Your task to perform on an android device: check google app version Image 0: 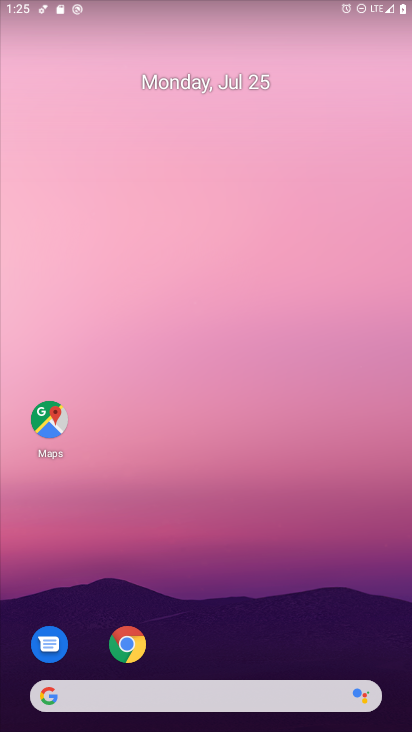
Step 0: drag from (287, 629) to (374, 12)
Your task to perform on an android device: check google app version Image 1: 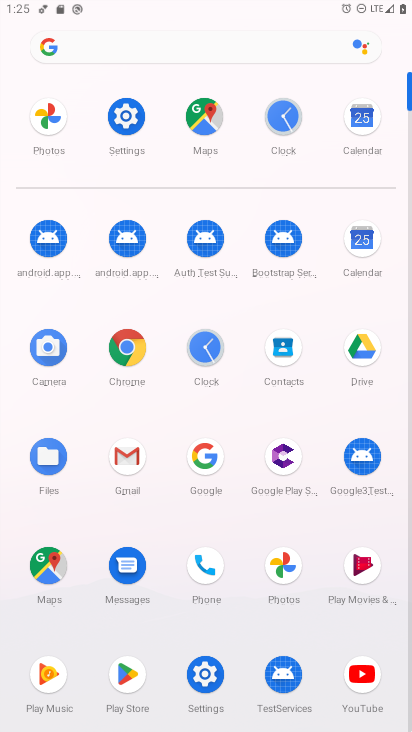
Step 1: click (209, 452)
Your task to perform on an android device: check google app version Image 2: 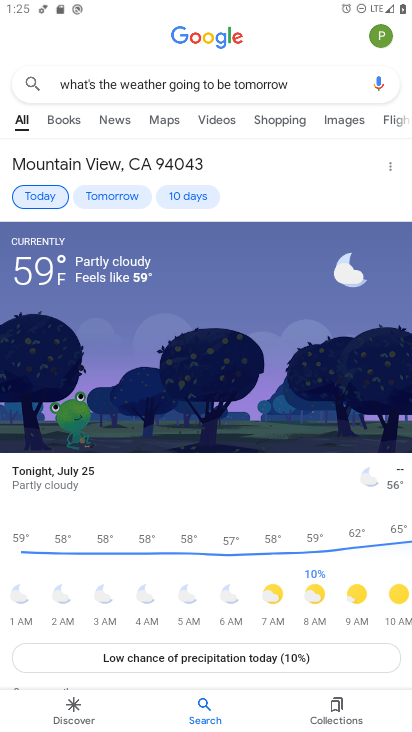
Step 2: click (376, 30)
Your task to perform on an android device: check google app version Image 3: 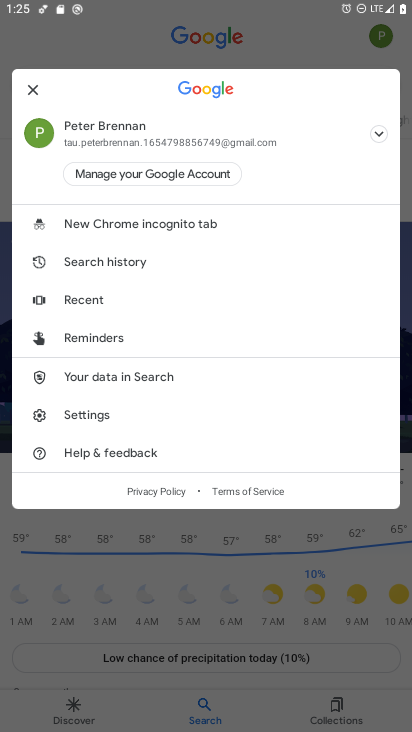
Step 3: click (125, 415)
Your task to perform on an android device: check google app version Image 4: 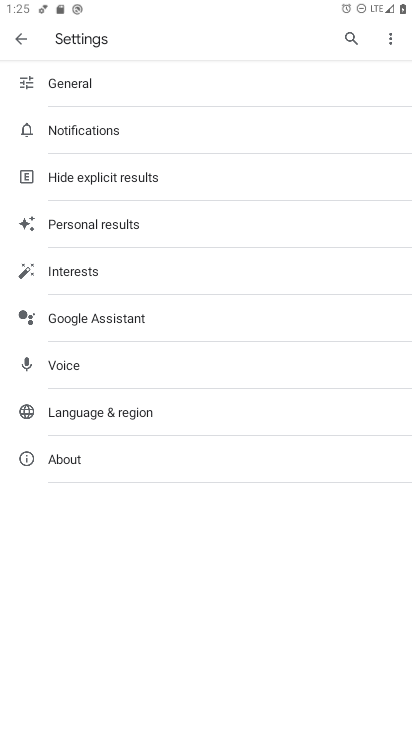
Step 4: click (89, 453)
Your task to perform on an android device: check google app version Image 5: 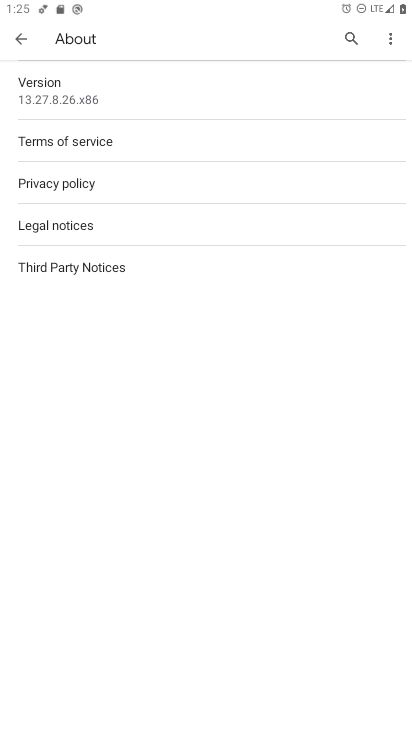
Step 5: click (68, 83)
Your task to perform on an android device: check google app version Image 6: 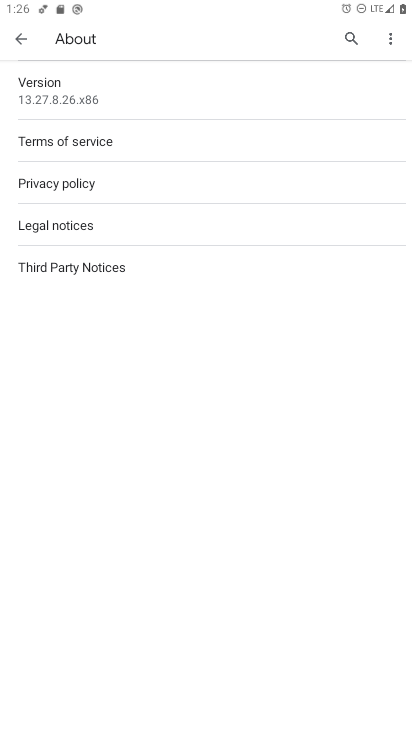
Step 6: click (277, 93)
Your task to perform on an android device: check google app version Image 7: 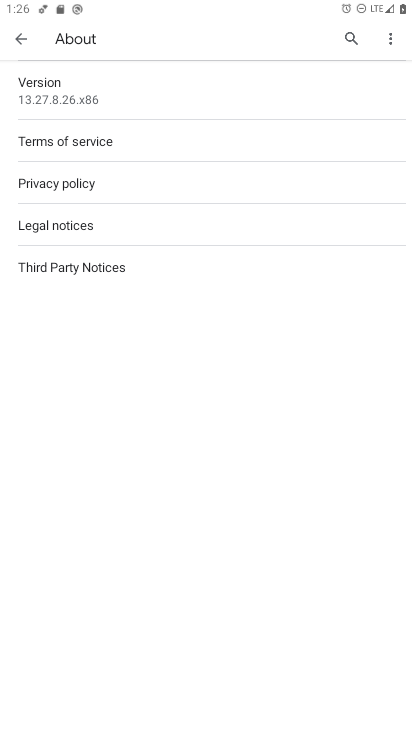
Step 7: task complete